Your task to perform on an android device: turn off translation in the chrome app Image 0: 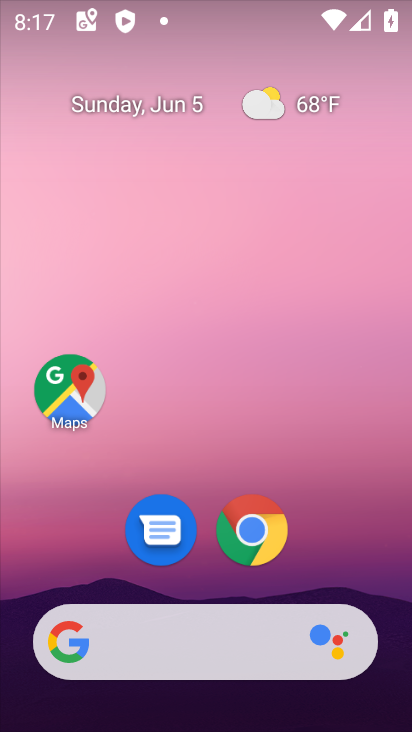
Step 0: click (254, 529)
Your task to perform on an android device: turn off translation in the chrome app Image 1: 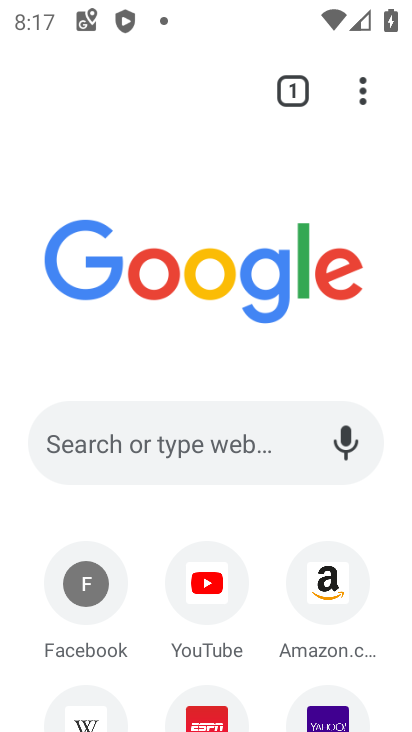
Step 1: click (359, 102)
Your task to perform on an android device: turn off translation in the chrome app Image 2: 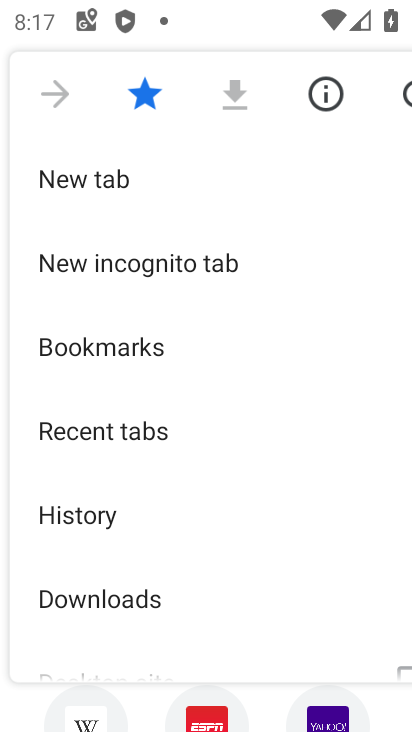
Step 2: drag from (237, 603) to (287, 189)
Your task to perform on an android device: turn off translation in the chrome app Image 3: 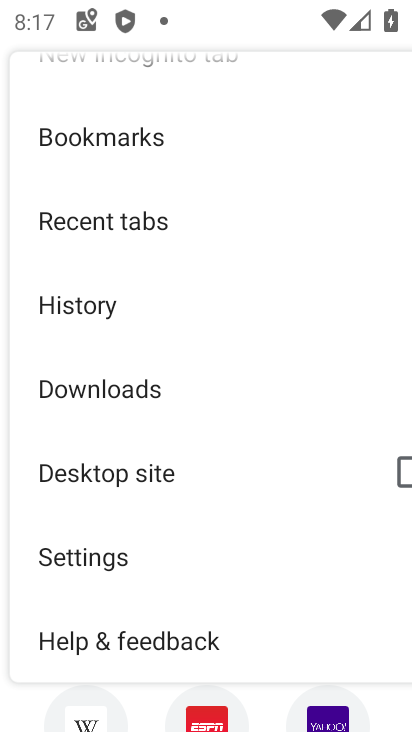
Step 3: click (102, 545)
Your task to perform on an android device: turn off translation in the chrome app Image 4: 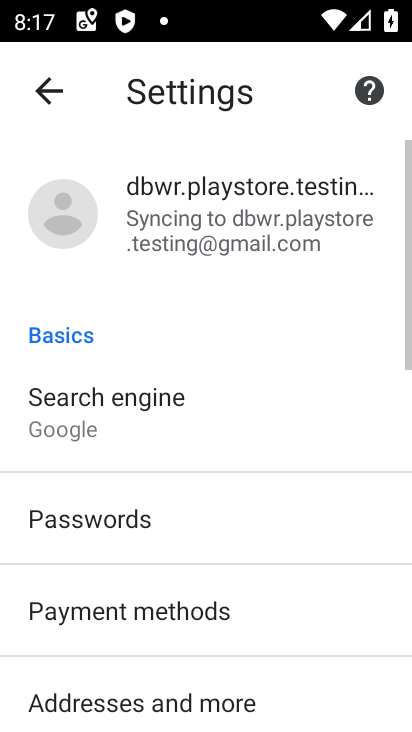
Step 4: drag from (281, 689) to (212, 76)
Your task to perform on an android device: turn off translation in the chrome app Image 5: 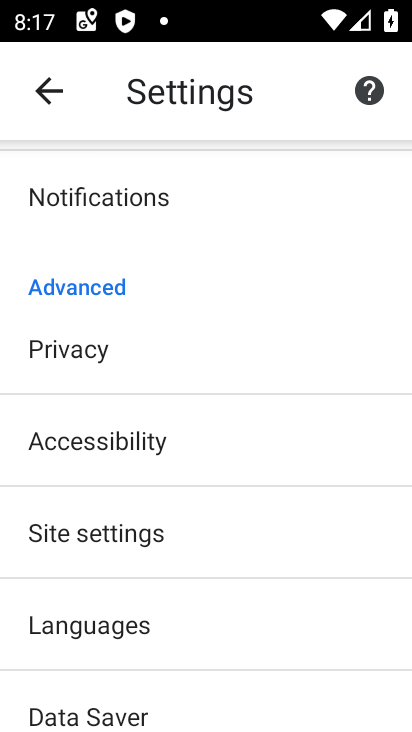
Step 5: drag from (209, 656) to (217, 519)
Your task to perform on an android device: turn off translation in the chrome app Image 6: 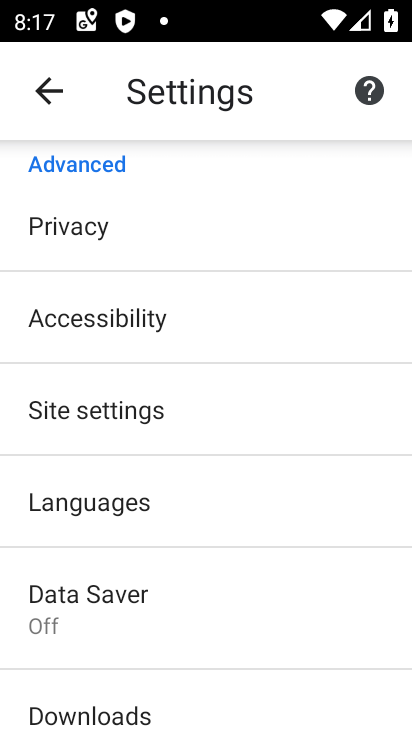
Step 6: click (80, 501)
Your task to perform on an android device: turn off translation in the chrome app Image 7: 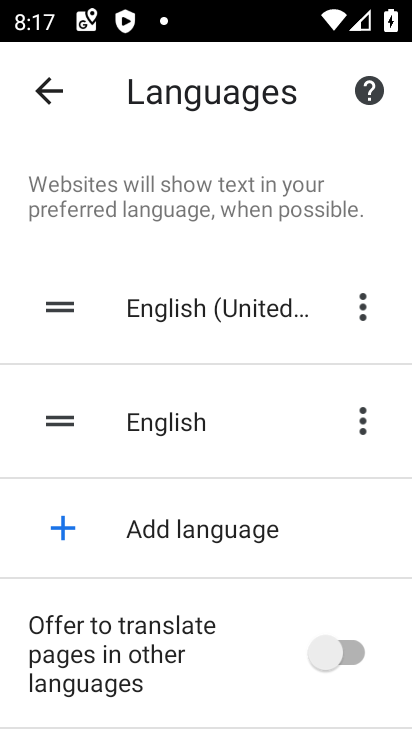
Step 7: task complete